Your task to perform on an android device: find which apps use the phone's location Image 0: 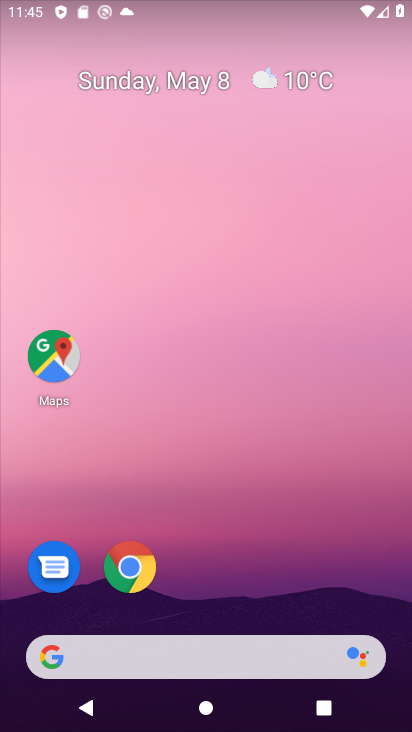
Step 0: drag from (202, 656) to (220, 118)
Your task to perform on an android device: find which apps use the phone's location Image 1: 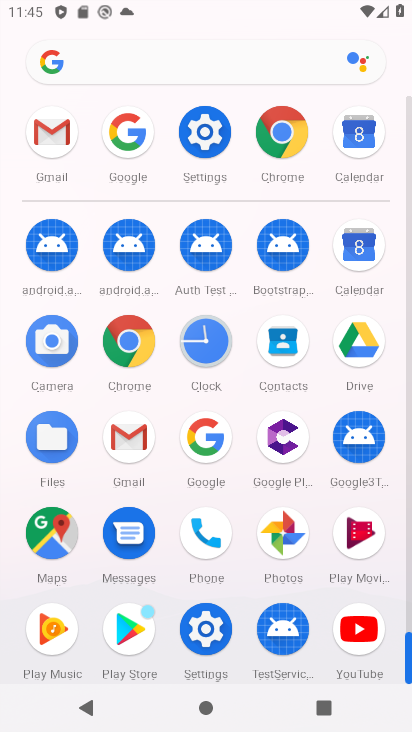
Step 1: click (199, 140)
Your task to perform on an android device: find which apps use the phone's location Image 2: 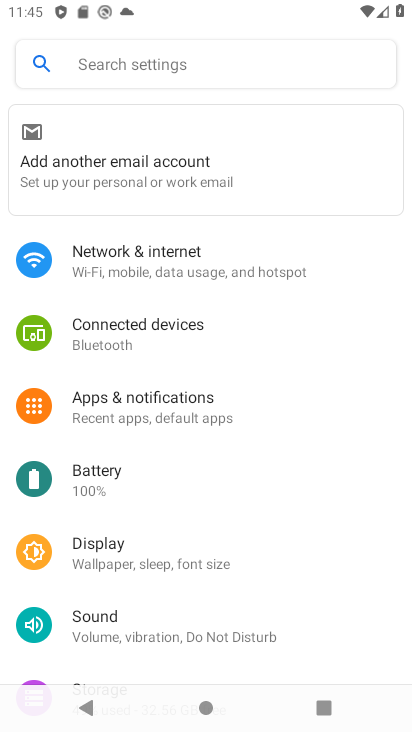
Step 2: click (227, 412)
Your task to perform on an android device: find which apps use the phone's location Image 3: 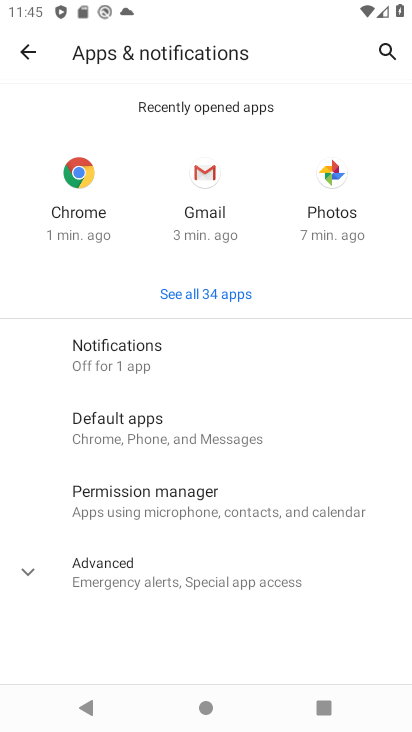
Step 3: click (221, 301)
Your task to perform on an android device: find which apps use the phone's location Image 4: 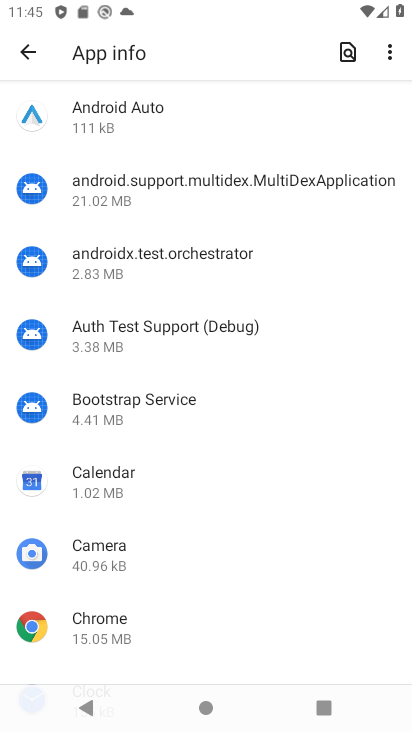
Step 4: task complete